Your task to perform on an android device: Open Google Maps and go to "Timeline" Image 0: 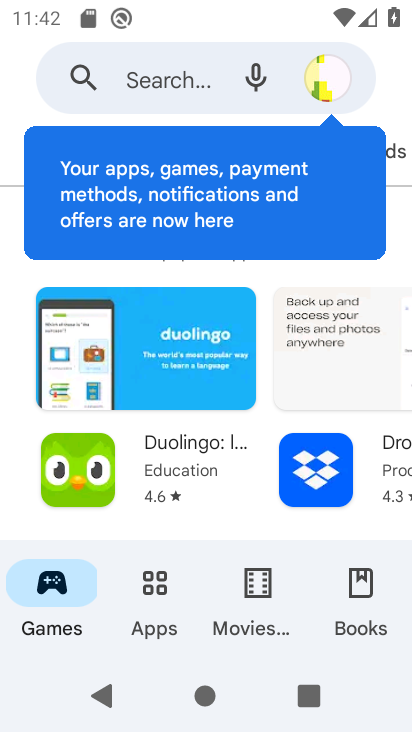
Step 0: press home button
Your task to perform on an android device: Open Google Maps and go to "Timeline" Image 1: 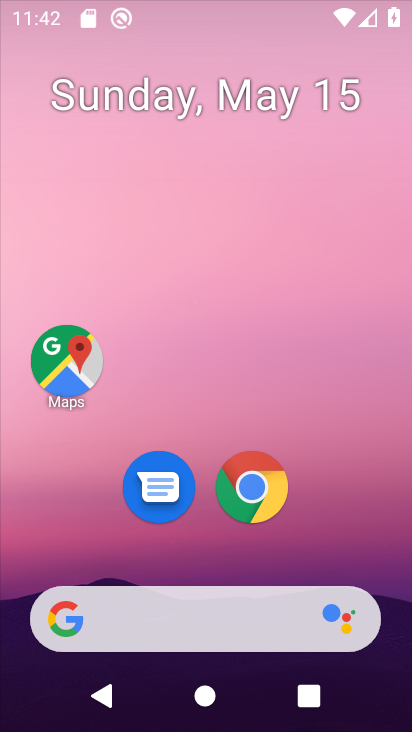
Step 1: drag from (238, 592) to (271, 263)
Your task to perform on an android device: Open Google Maps and go to "Timeline" Image 2: 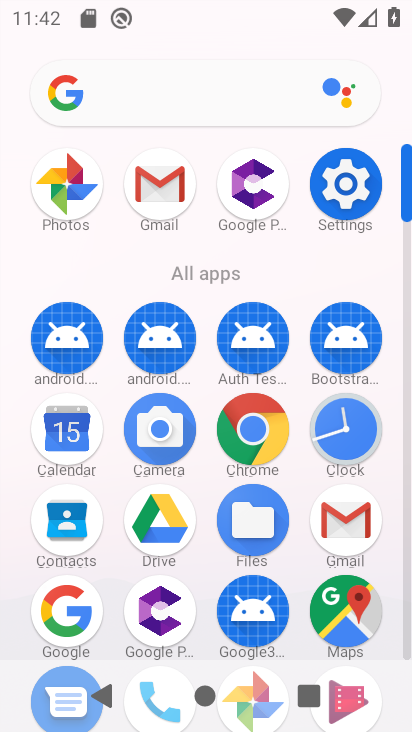
Step 2: click (350, 623)
Your task to perform on an android device: Open Google Maps and go to "Timeline" Image 3: 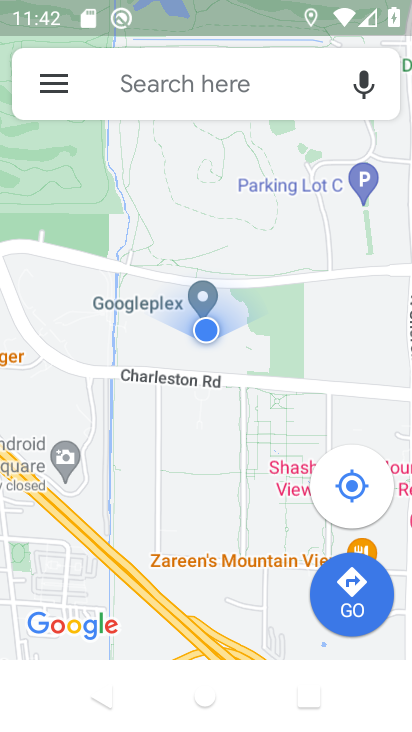
Step 3: click (62, 87)
Your task to perform on an android device: Open Google Maps and go to "Timeline" Image 4: 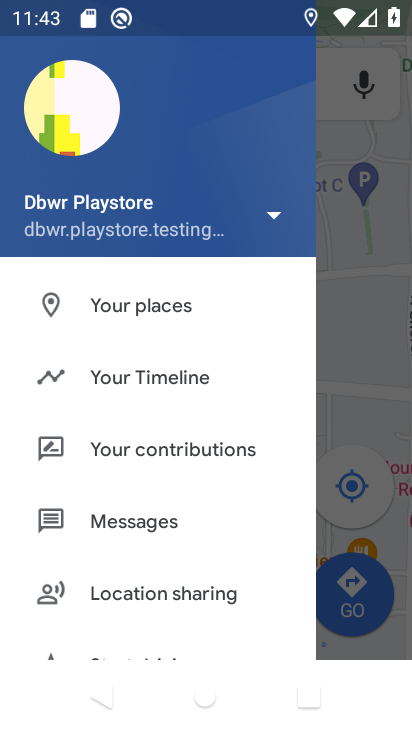
Step 4: click (167, 381)
Your task to perform on an android device: Open Google Maps and go to "Timeline" Image 5: 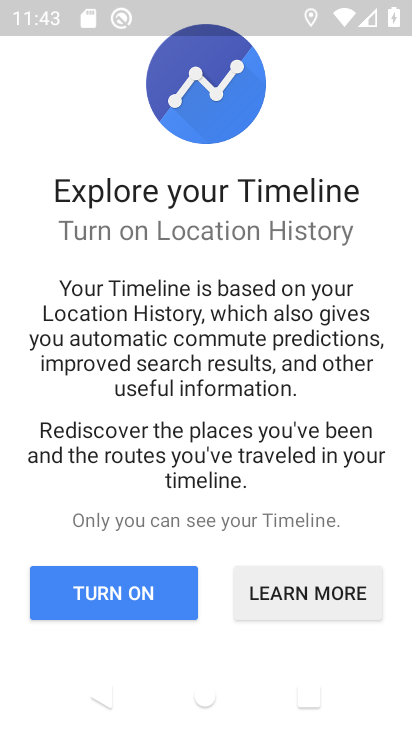
Step 5: drag from (178, 508) to (241, 112)
Your task to perform on an android device: Open Google Maps and go to "Timeline" Image 6: 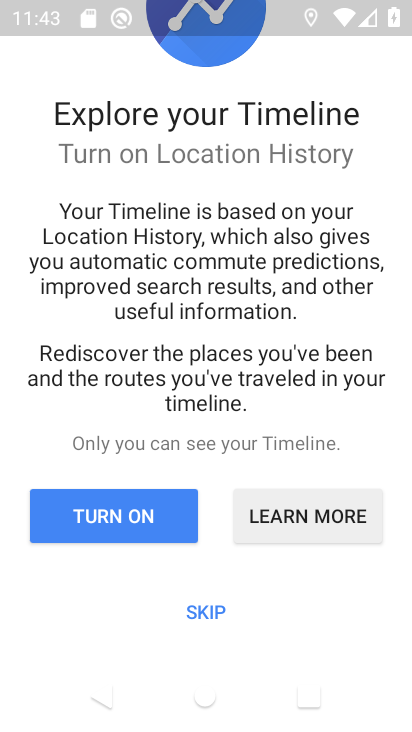
Step 6: click (211, 599)
Your task to perform on an android device: Open Google Maps and go to "Timeline" Image 7: 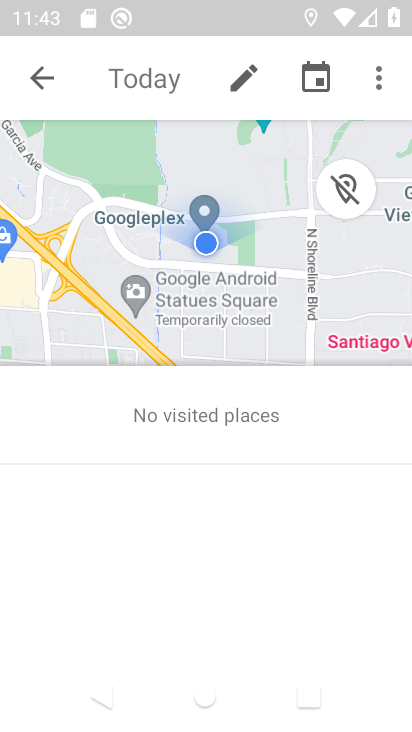
Step 7: task complete